Your task to perform on an android device: Go to Maps Image 0: 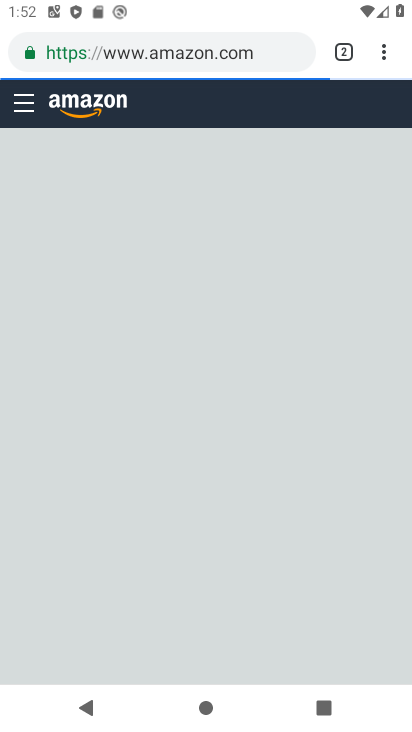
Step 0: press home button
Your task to perform on an android device: Go to Maps Image 1: 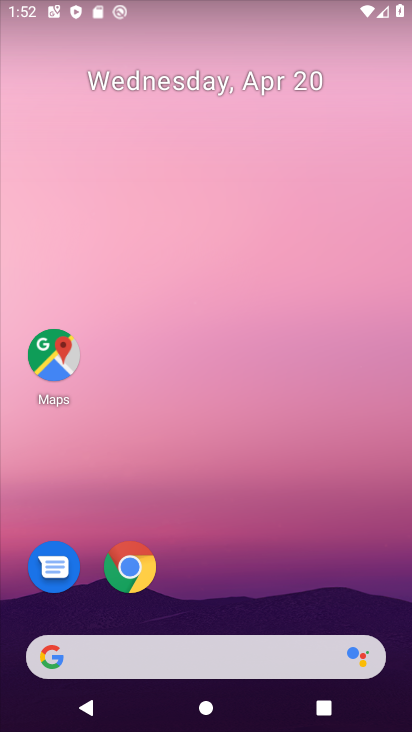
Step 1: click (46, 372)
Your task to perform on an android device: Go to Maps Image 2: 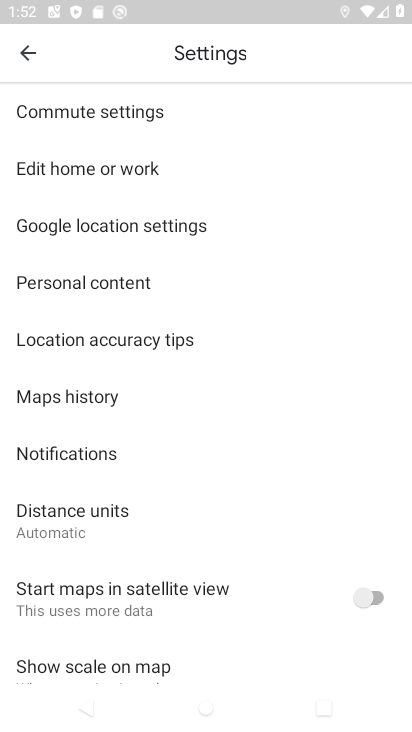
Step 2: task complete